Your task to perform on an android device: check the backup settings in the google photos Image 0: 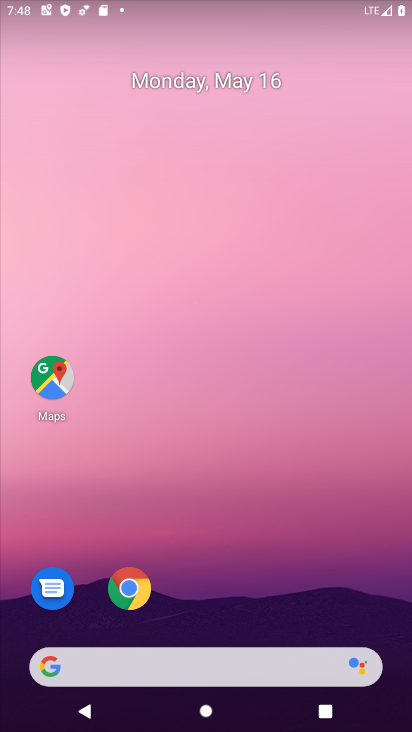
Step 0: drag from (222, 474) to (198, 88)
Your task to perform on an android device: check the backup settings in the google photos Image 1: 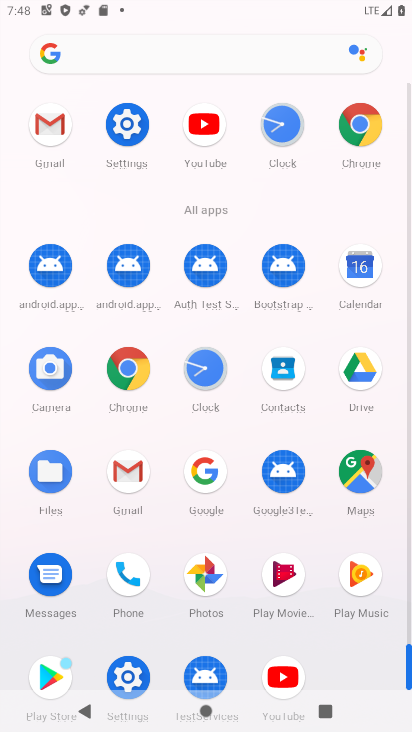
Step 1: drag from (6, 523) to (16, 264)
Your task to perform on an android device: check the backup settings in the google photos Image 2: 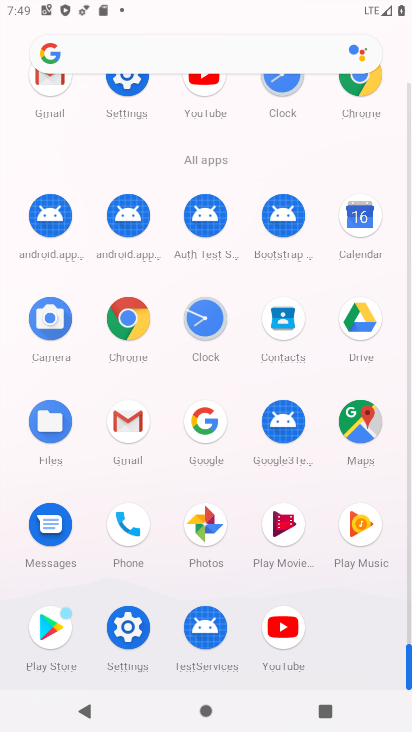
Step 2: click (201, 522)
Your task to perform on an android device: check the backup settings in the google photos Image 3: 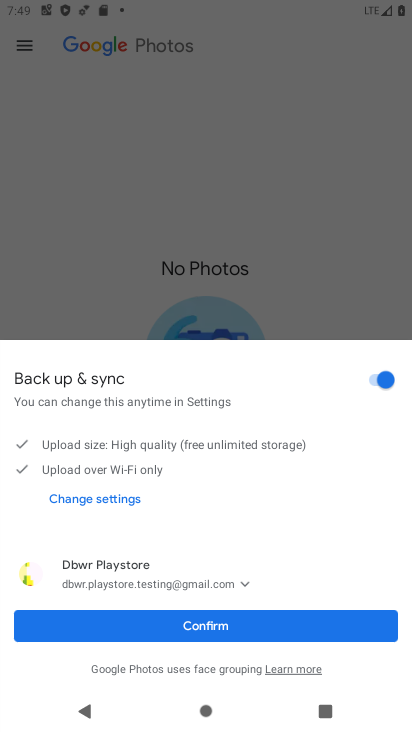
Step 3: click (216, 628)
Your task to perform on an android device: check the backup settings in the google photos Image 4: 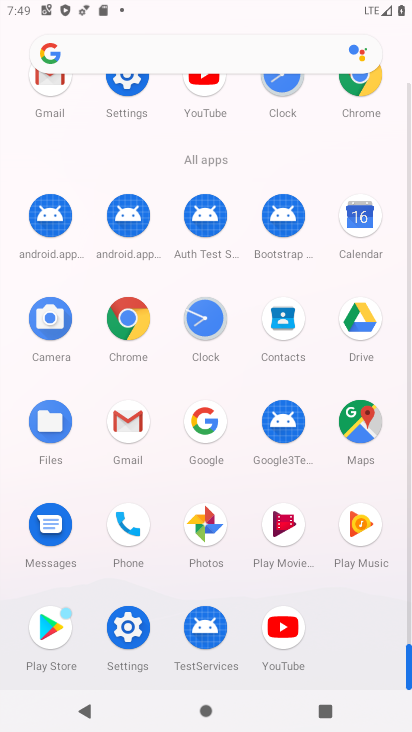
Step 4: click (203, 526)
Your task to perform on an android device: check the backup settings in the google photos Image 5: 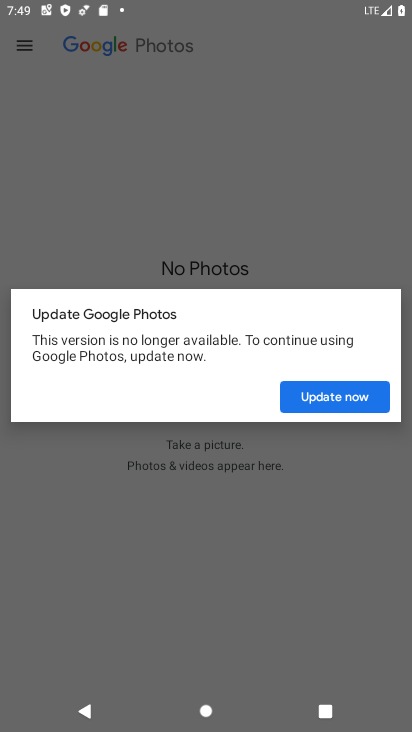
Step 5: click (329, 389)
Your task to perform on an android device: check the backup settings in the google photos Image 6: 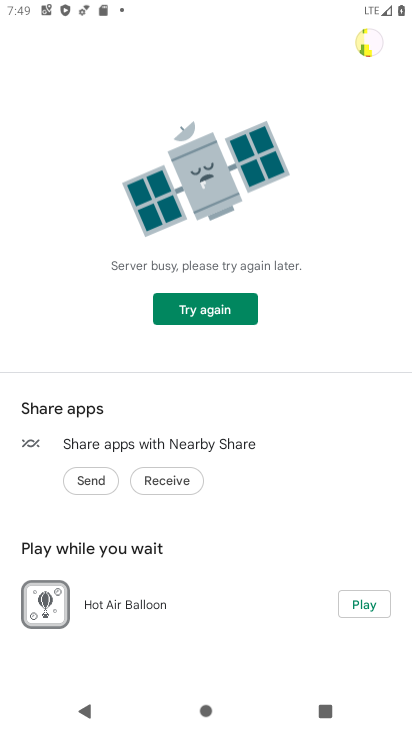
Step 6: click (203, 301)
Your task to perform on an android device: check the backup settings in the google photos Image 7: 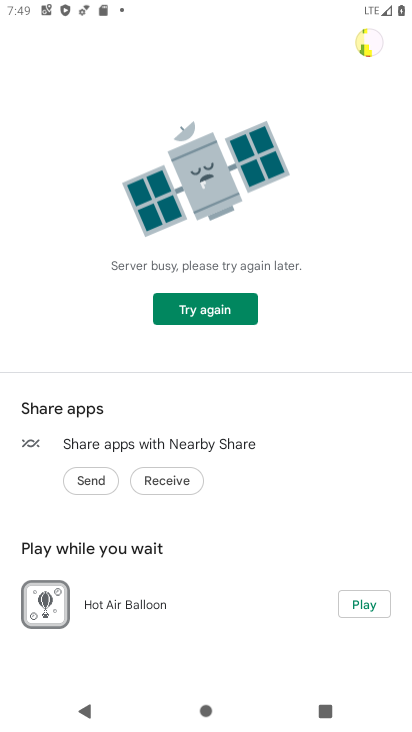
Step 7: task complete